Your task to perform on an android device: open chrome privacy settings Image 0: 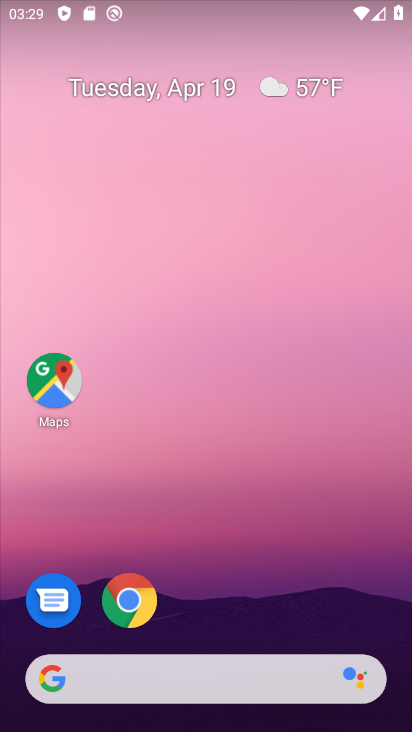
Step 0: drag from (268, 554) to (265, 92)
Your task to perform on an android device: open chrome privacy settings Image 1: 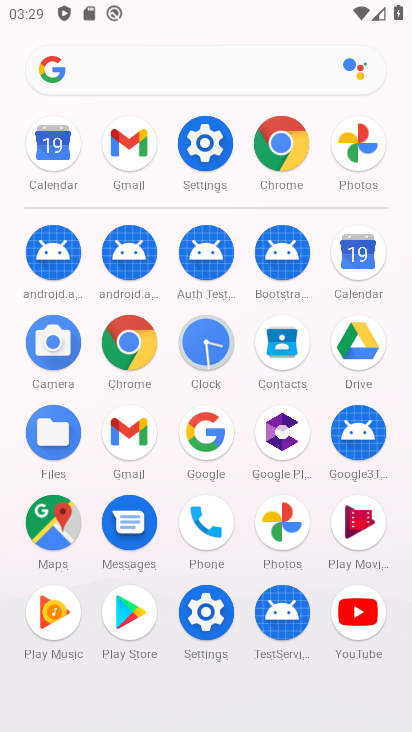
Step 1: click (278, 148)
Your task to perform on an android device: open chrome privacy settings Image 2: 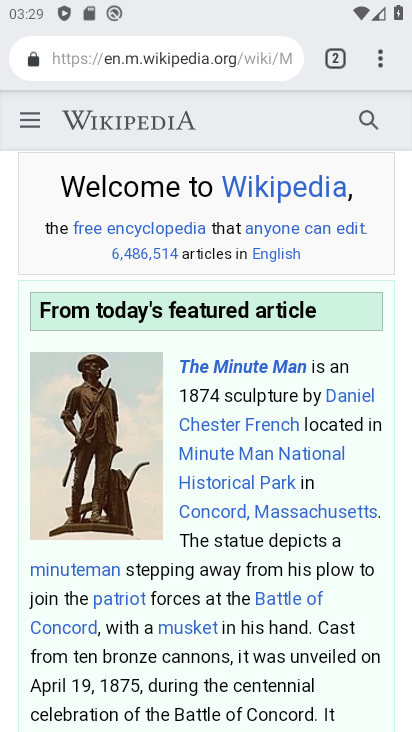
Step 2: click (383, 68)
Your task to perform on an android device: open chrome privacy settings Image 3: 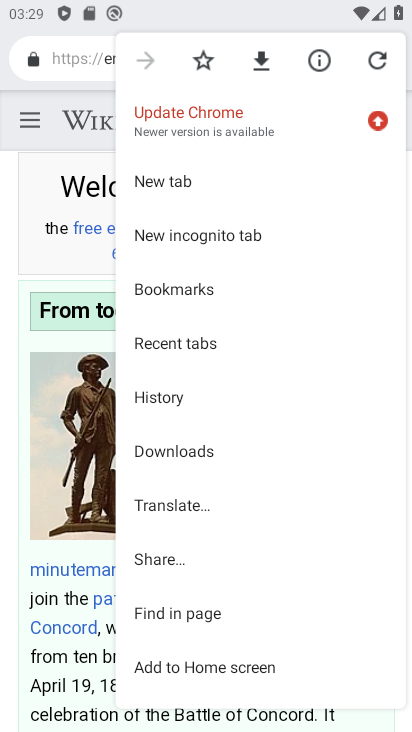
Step 3: drag from (278, 667) to (301, 202)
Your task to perform on an android device: open chrome privacy settings Image 4: 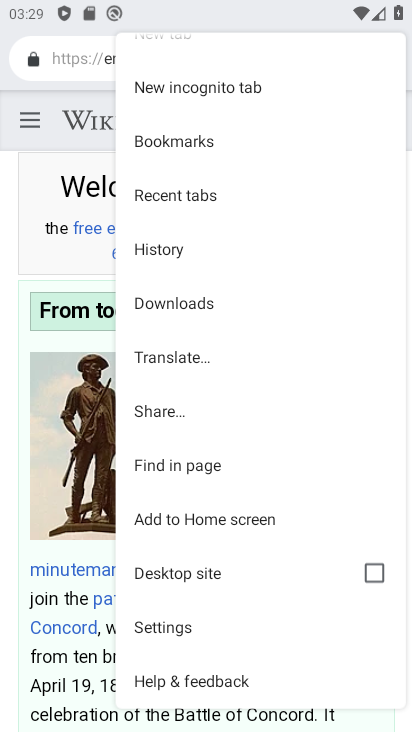
Step 4: click (290, 620)
Your task to perform on an android device: open chrome privacy settings Image 5: 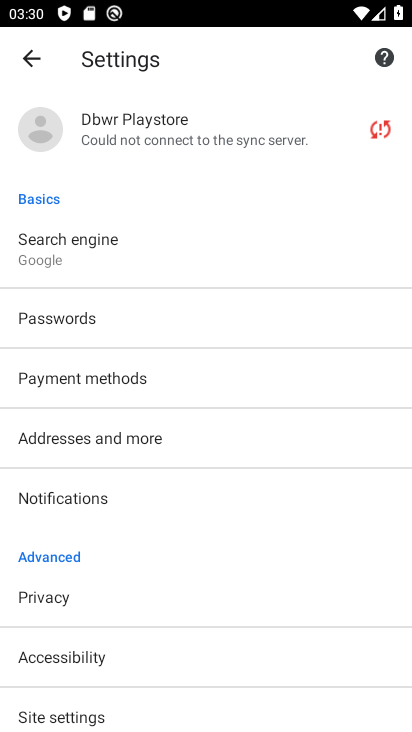
Step 5: click (259, 598)
Your task to perform on an android device: open chrome privacy settings Image 6: 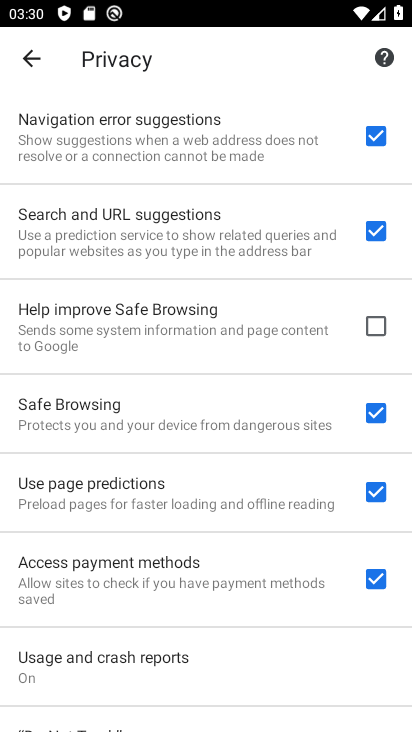
Step 6: task complete